Your task to perform on an android device: find which apps use the phone's location Image 0: 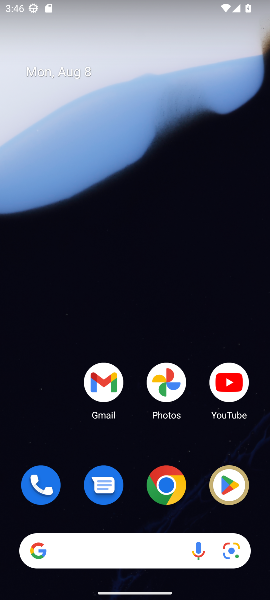
Step 0: drag from (187, 486) to (138, 123)
Your task to perform on an android device: find which apps use the phone's location Image 1: 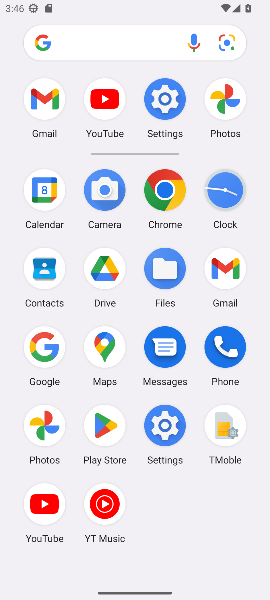
Step 1: click (165, 431)
Your task to perform on an android device: find which apps use the phone's location Image 2: 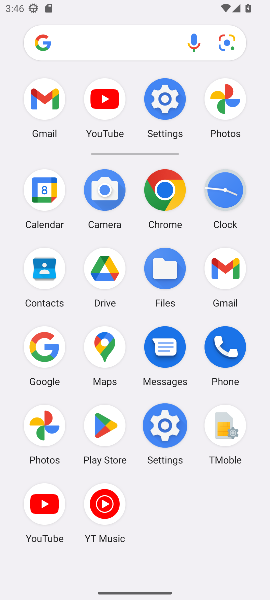
Step 2: click (161, 429)
Your task to perform on an android device: find which apps use the phone's location Image 3: 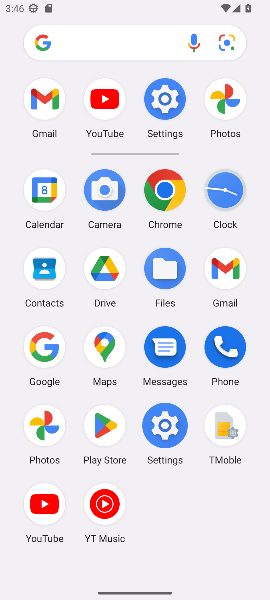
Step 3: click (161, 431)
Your task to perform on an android device: find which apps use the phone's location Image 4: 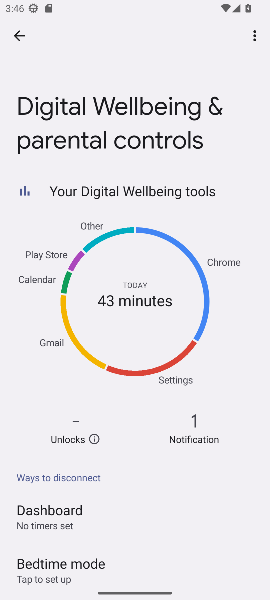
Step 4: click (12, 38)
Your task to perform on an android device: find which apps use the phone's location Image 5: 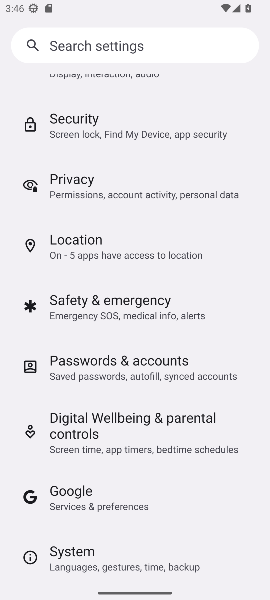
Step 5: click (74, 249)
Your task to perform on an android device: find which apps use the phone's location Image 6: 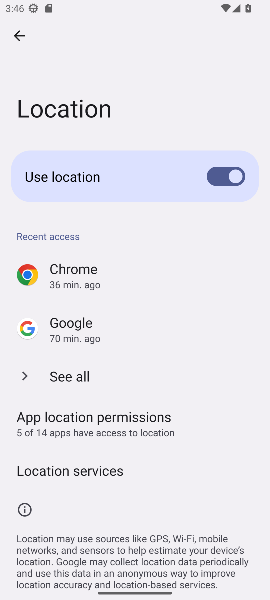
Step 6: click (83, 403)
Your task to perform on an android device: find which apps use the phone's location Image 7: 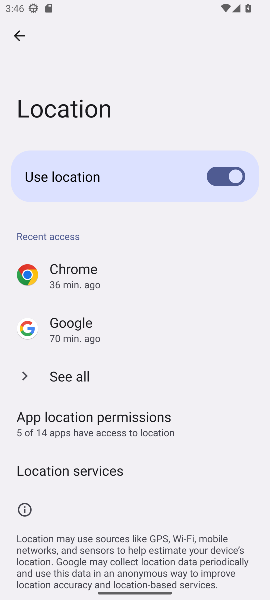
Step 7: click (74, 420)
Your task to perform on an android device: find which apps use the phone's location Image 8: 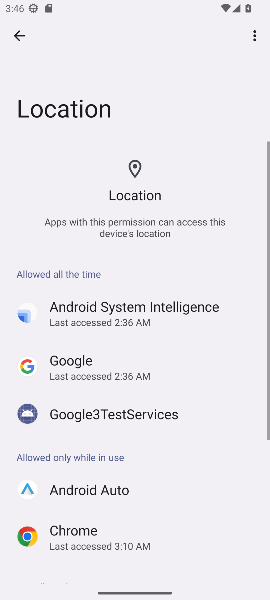
Step 8: task complete